Your task to perform on an android device: Go to wifi settings Image 0: 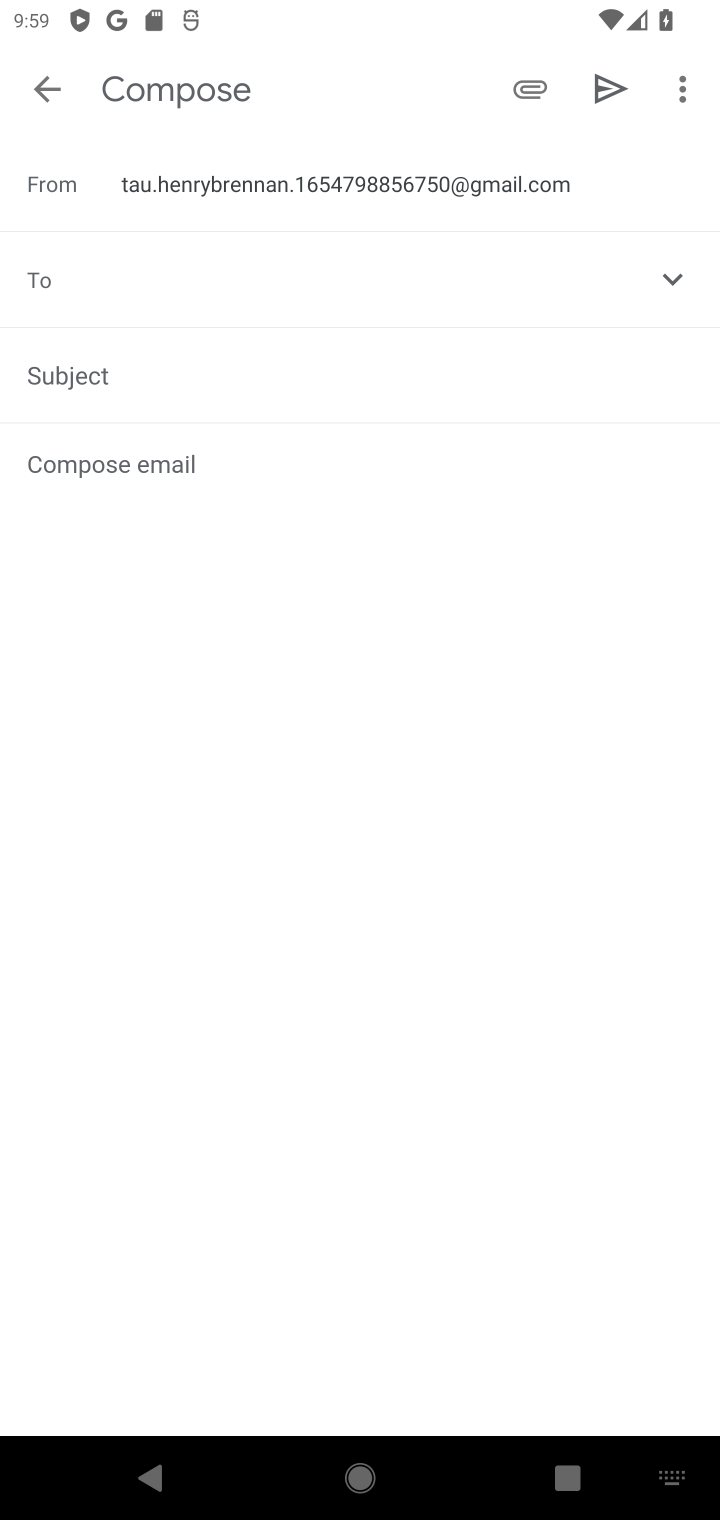
Step 0: press back button
Your task to perform on an android device: Go to wifi settings Image 1: 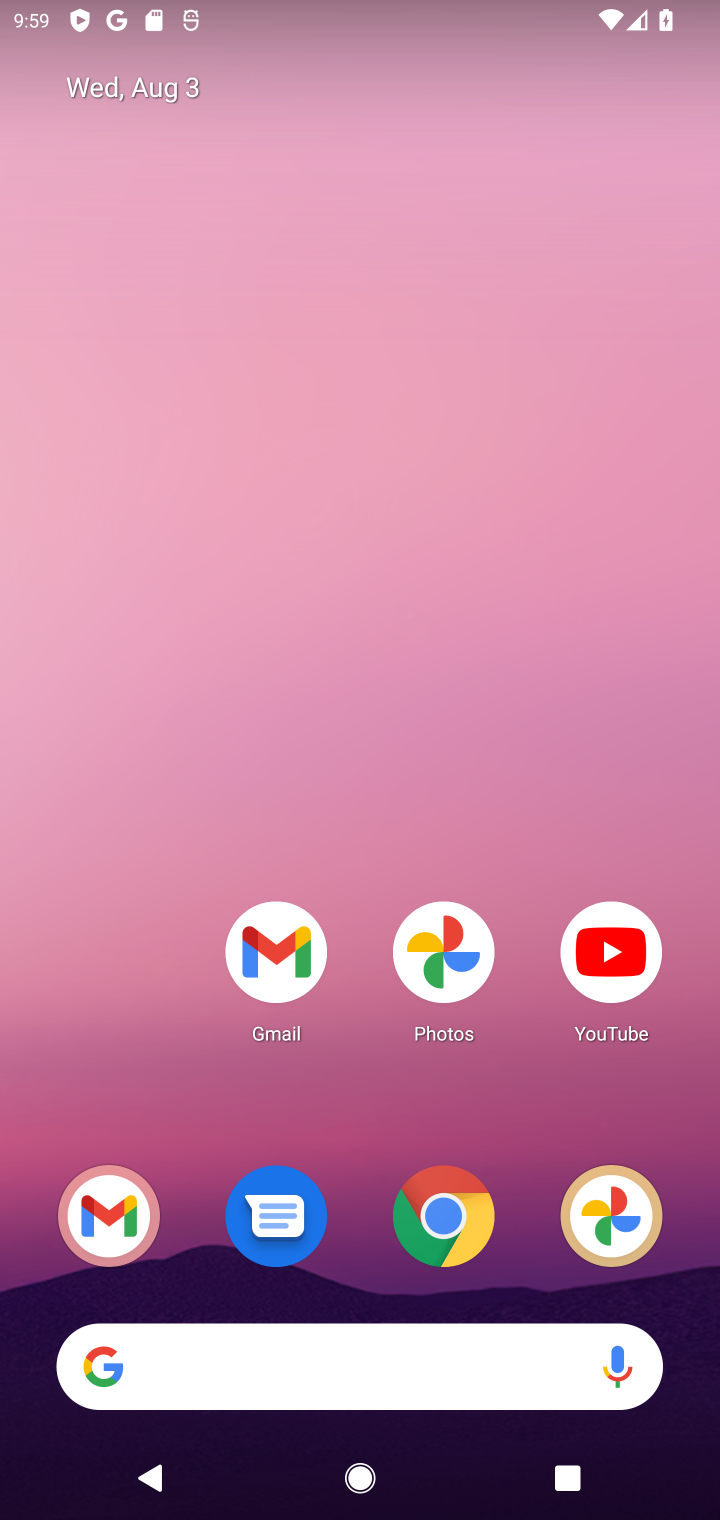
Step 1: drag from (173, 119) to (258, 1114)
Your task to perform on an android device: Go to wifi settings Image 2: 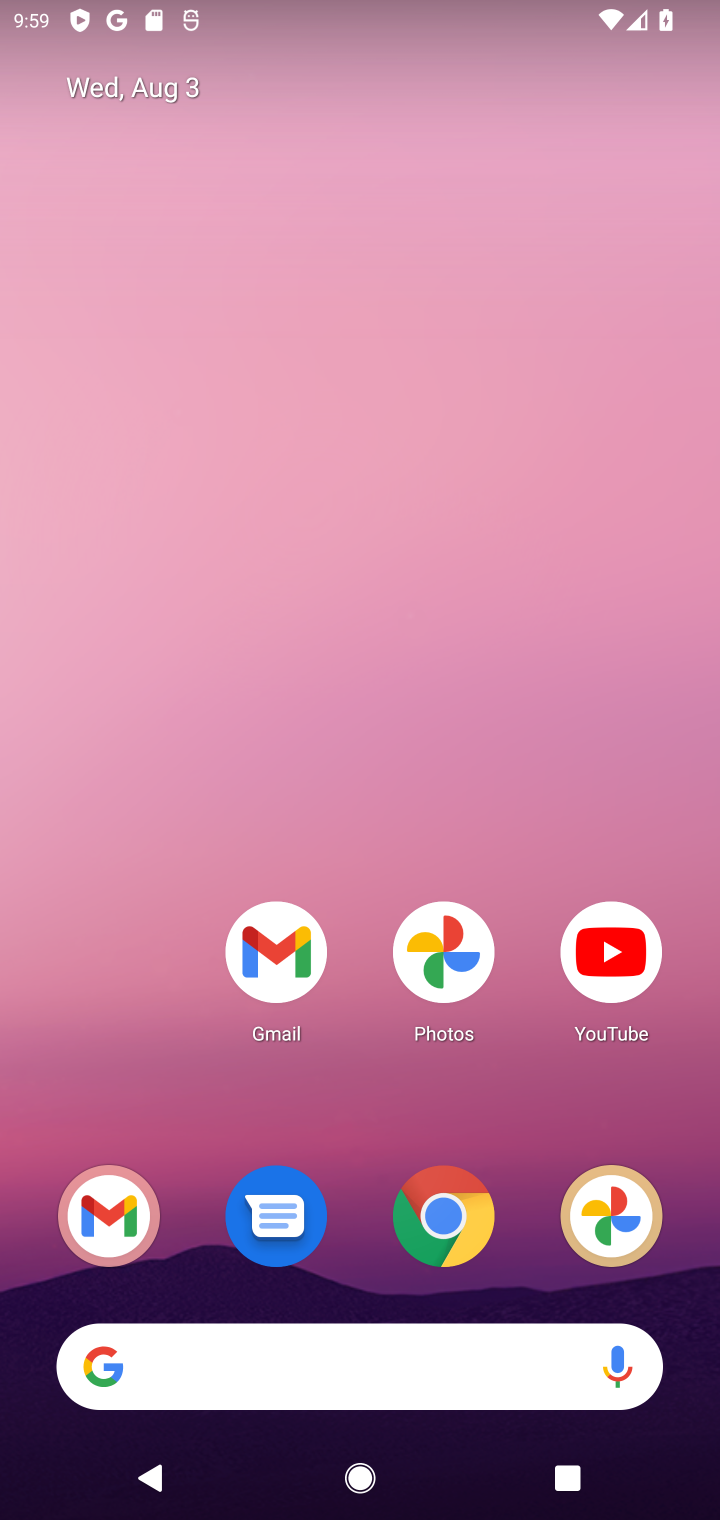
Step 2: drag from (154, 37) to (178, 1221)
Your task to perform on an android device: Go to wifi settings Image 3: 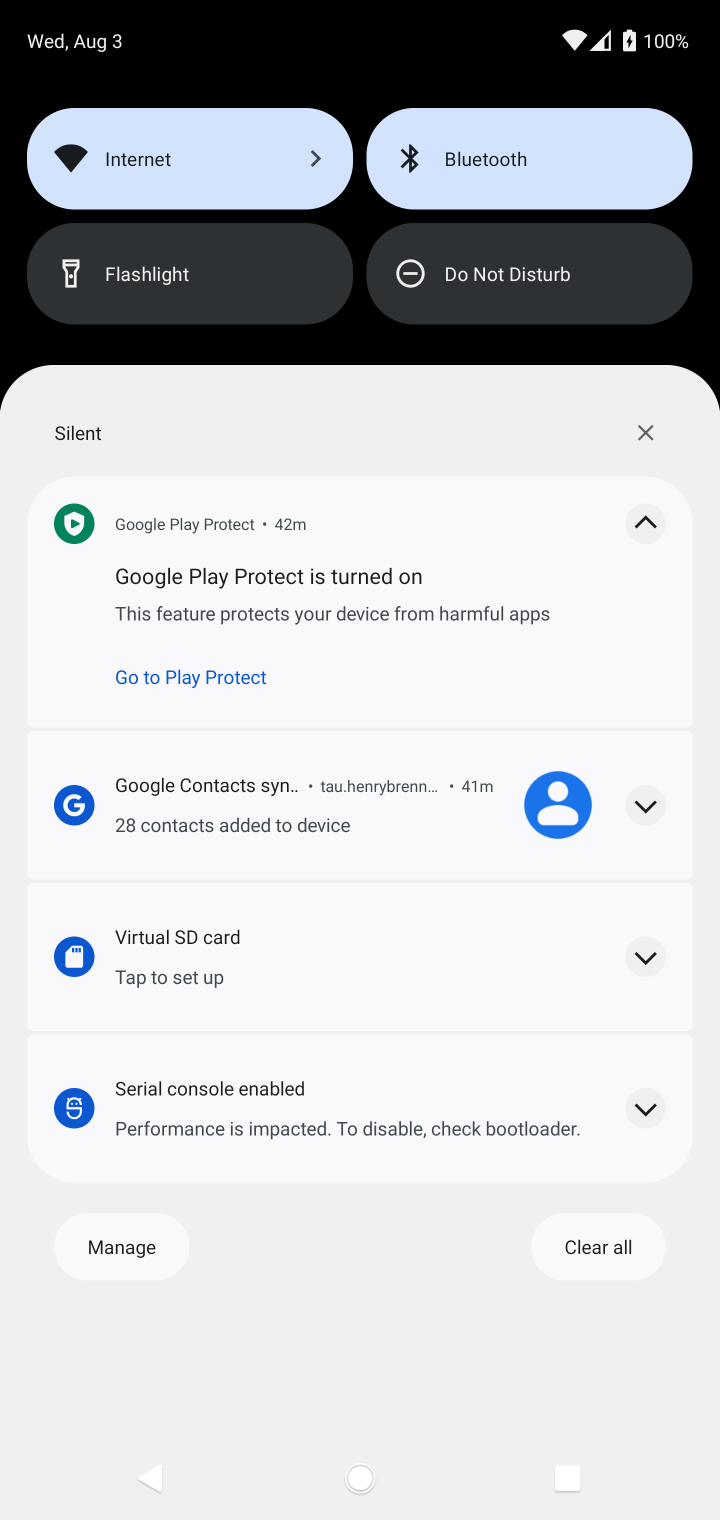
Step 3: click (114, 174)
Your task to perform on an android device: Go to wifi settings Image 4: 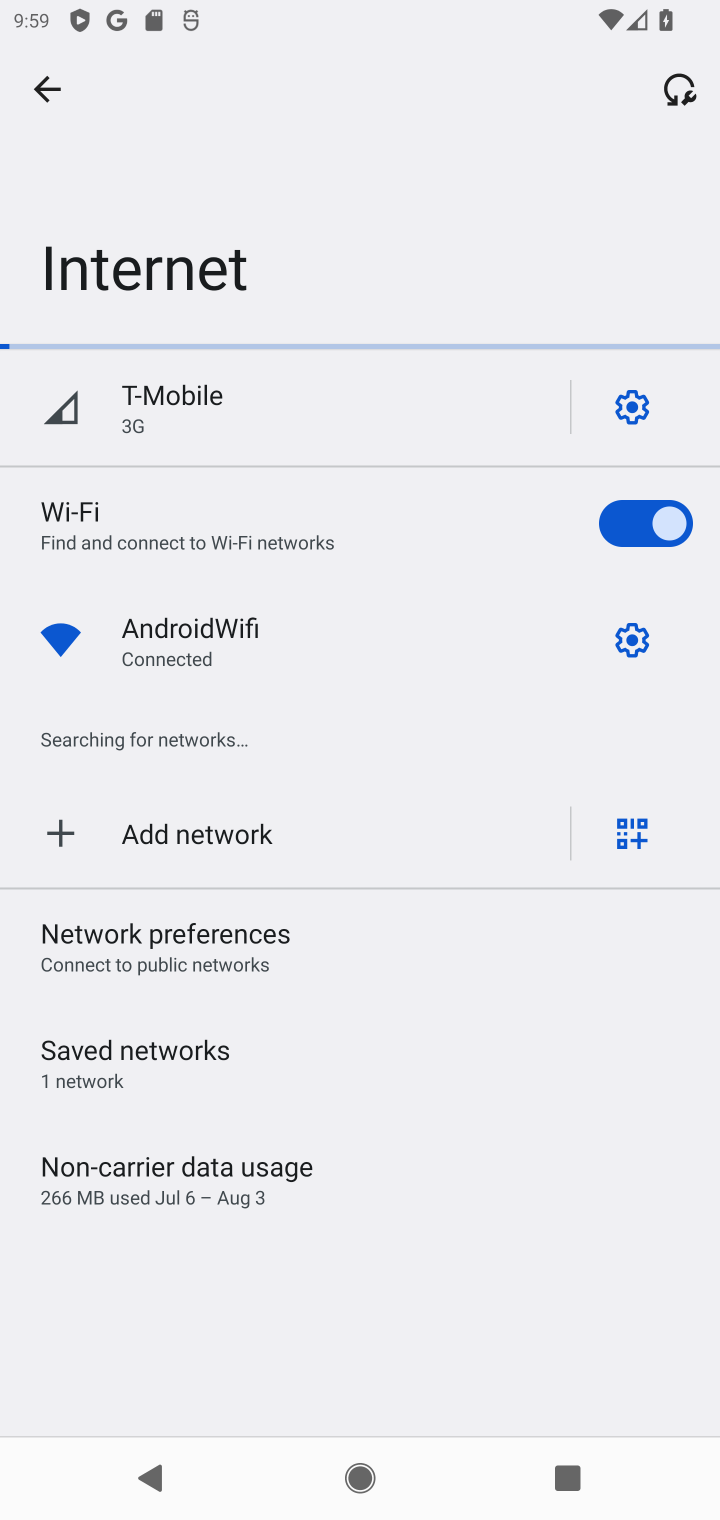
Step 4: task complete